Your task to perform on an android device: Check the news Image 0: 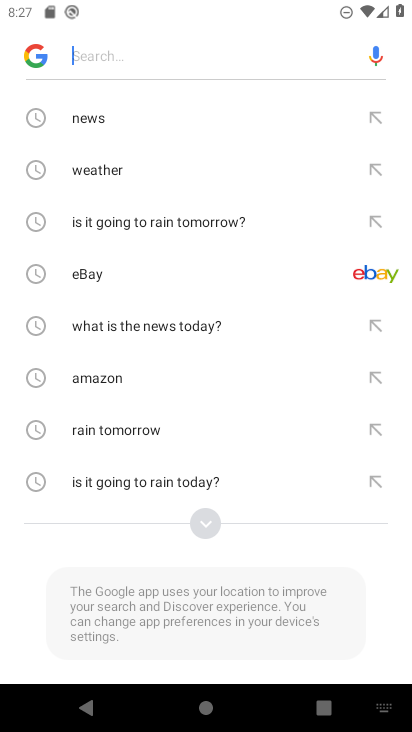
Step 0: press back button
Your task to perform on an android device: Check the news Image 1: 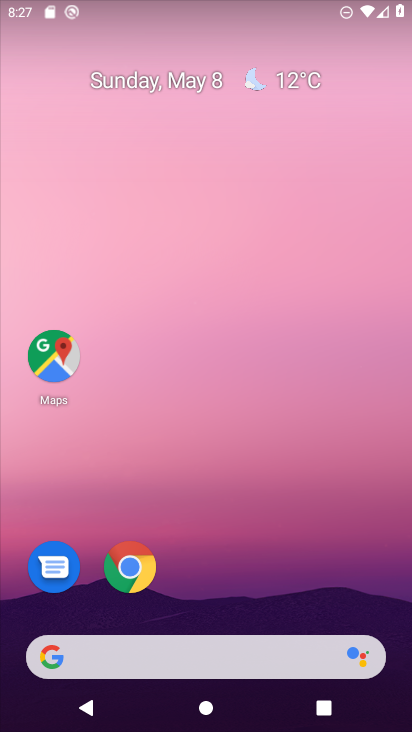
Step 1: click (120, 579)
Your task to perform on an android device: Check the news Image 2: 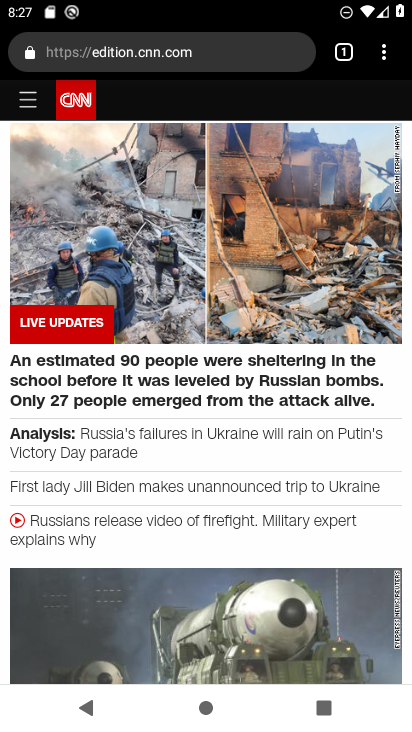
Step 2: task complete